Your task to perform on an android device: Open the map Image 0: 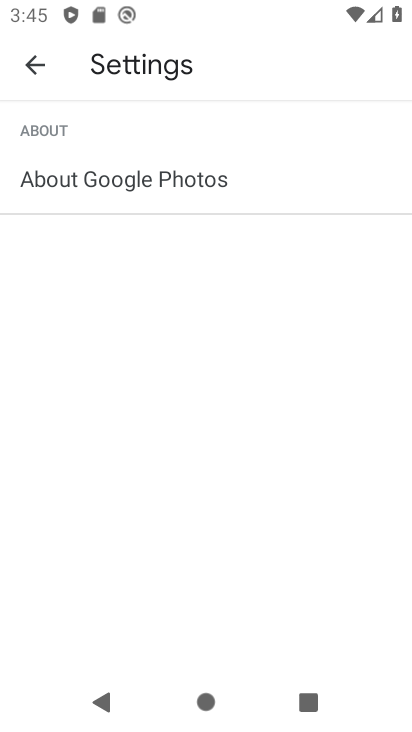
Step 0: press home button
Your task to perform on an android device: Open the map Image 1: 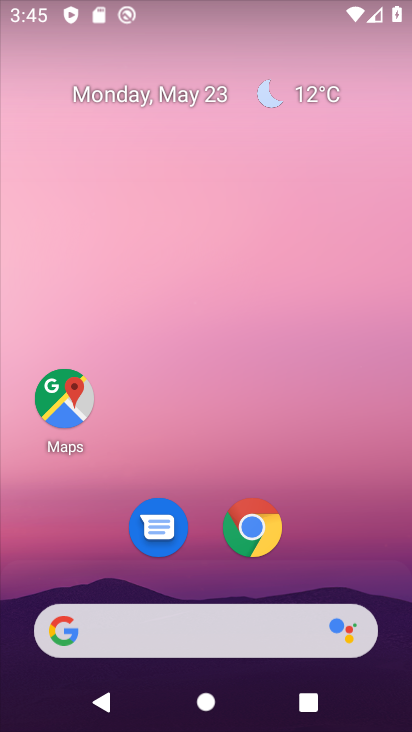
Step 1: click (63, 395)
Your task to perform on an android device: Open the map Image 2: 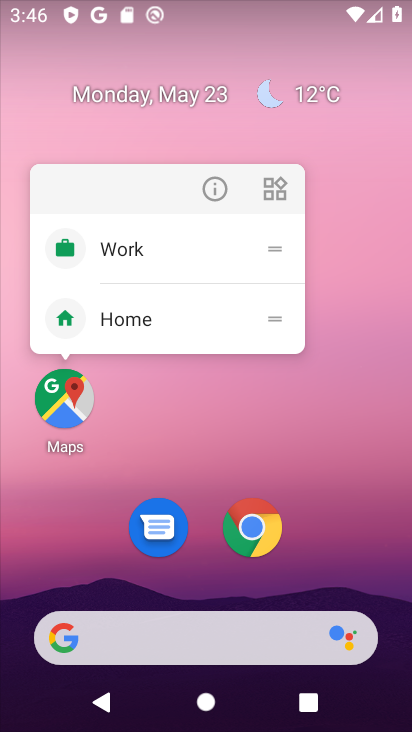
Step 2: click (61, 391)
Your task to perform on an android device: Open the map Image 3: 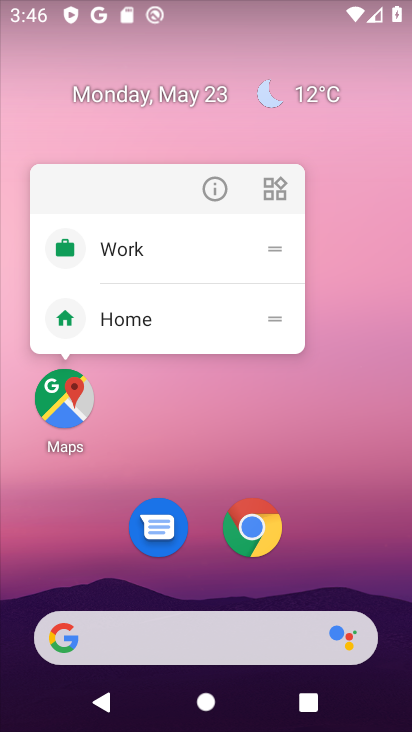
Step 3: click (61, 392)
Your task to perform on an android device: Open the map Image 4: 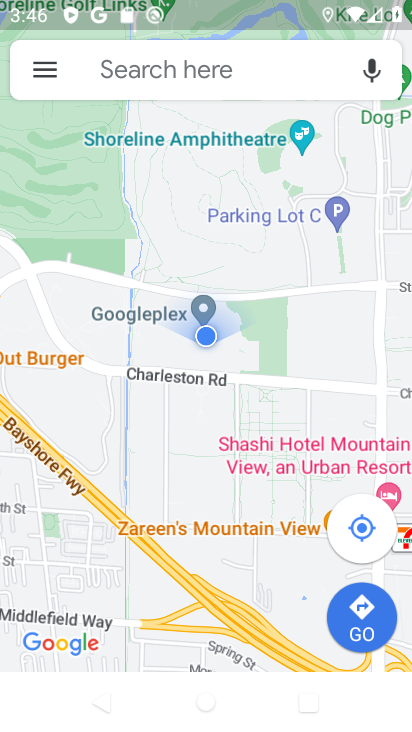
Step 4: task complete